Your task to perform on an android device: Open the stopwatch Image 0: 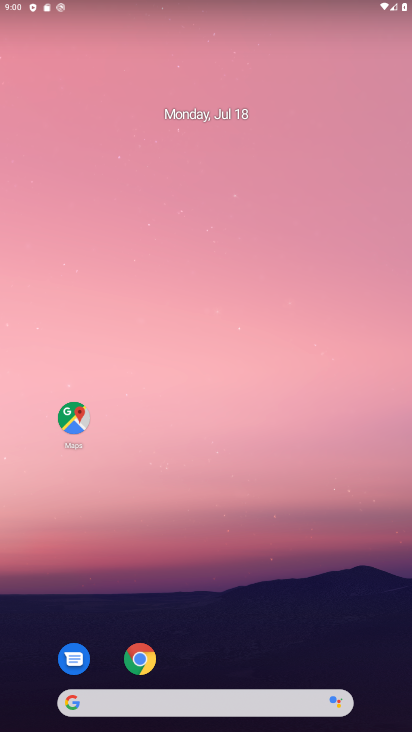
Step 0: drag from (226, 647) to (304, 74)
Your task to perform on an android device: Open the stopwatch Image 1: 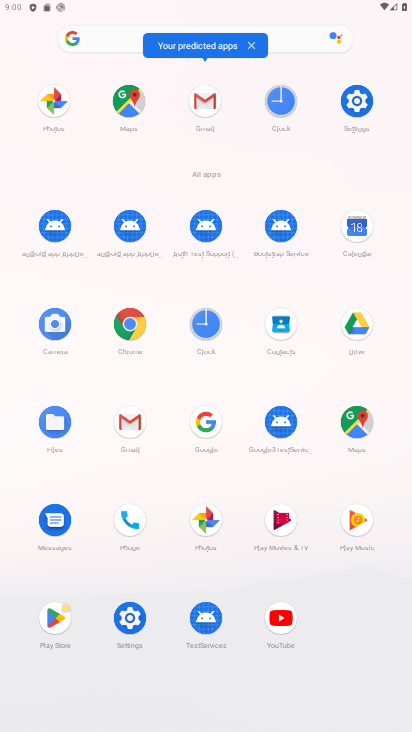
Step 1: click (211, 315)
Your task to perform on an android device: Open the stopwatch Image 2: 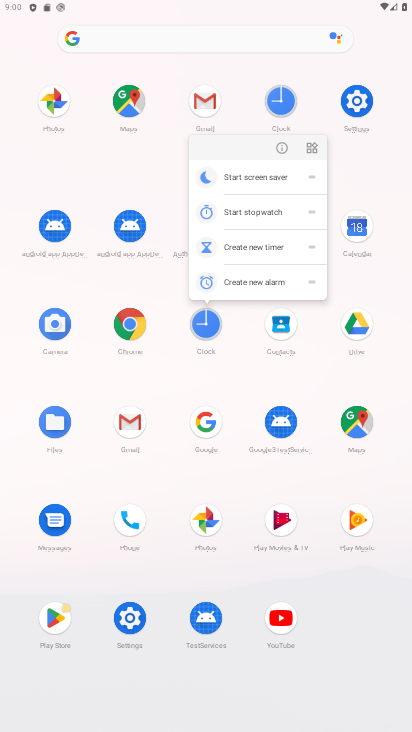
Step 2: click (197, 340)
Your task to perform on an android device: Open the stopwatch Image 3: 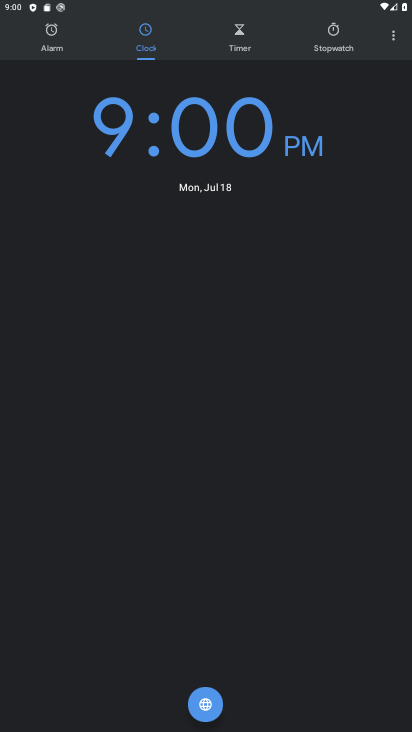
Step 3: click (346, 39)
Your task to perform on an android device: Open the stopwatch Image 4: 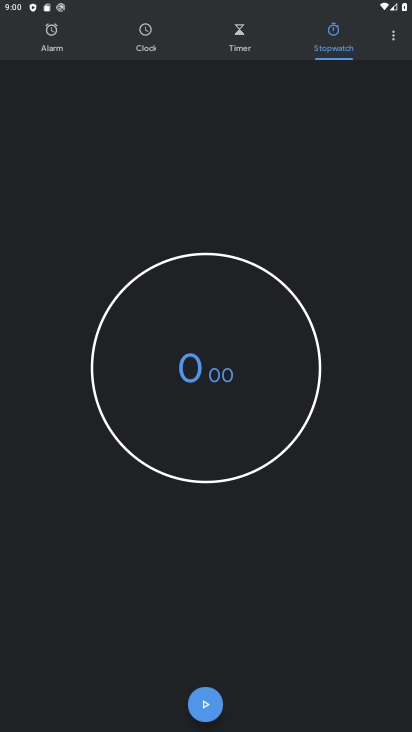
Step 4: task complete